Your task to perform on an android device: Open Chrome and go to the settings page Image 0: 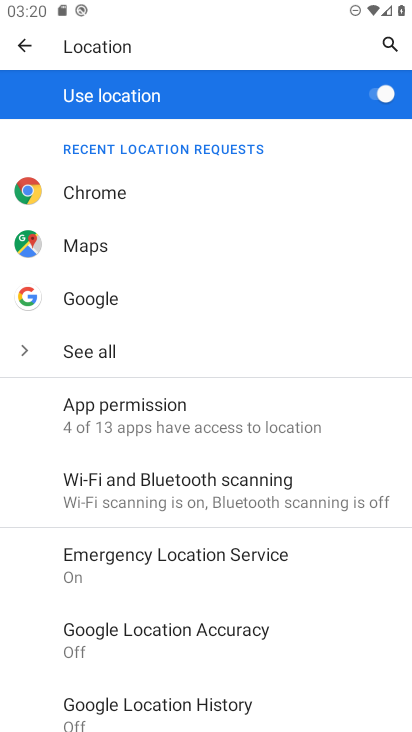
Step 0: press home button
Your task to perform on an android device: Open Chrome and go to the settings page Image 1: 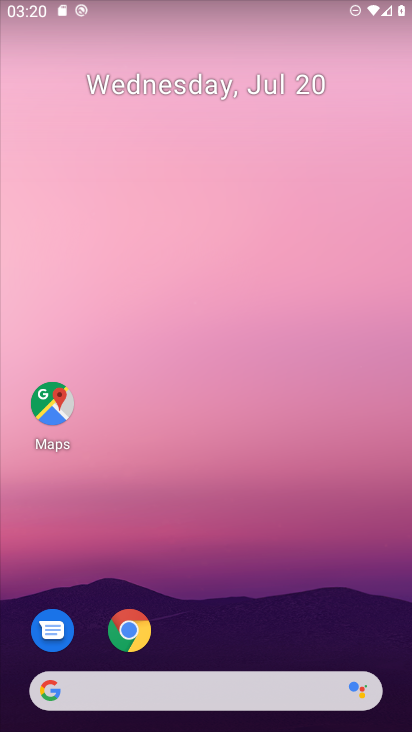
Step 1: drag from (373, 630) to (371, 205)
Your task to perform on an android device: Open Chrome and go to the settings page Image 2: 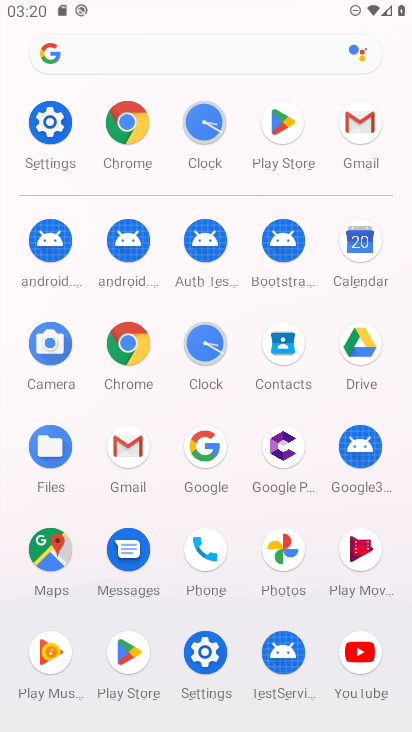
Step 2: click (135, 342)
Your task to perform on an android device: Open Chrome and go to the settings page Image 3: 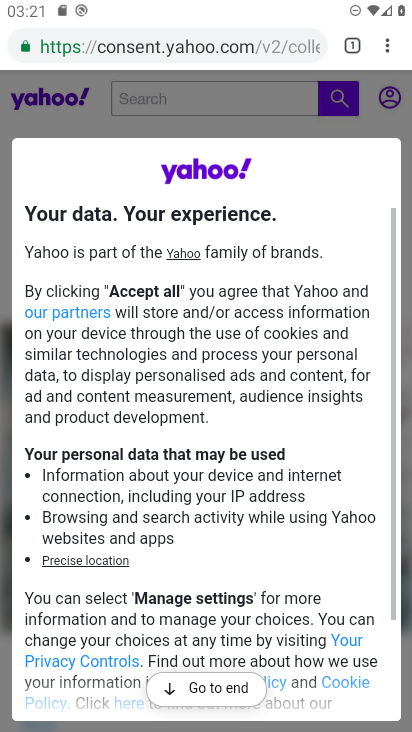
Step 3: click (391, 47)
Your task to perform on an android device: Open Chrome and go to the settings page Image 4: 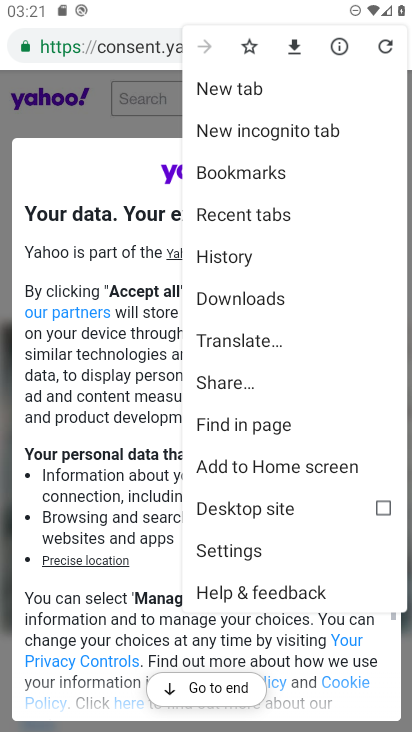
Step 4: click (247, 549)
Your task to perform on an android device: Open Chrome and go to the settings page Image 5: 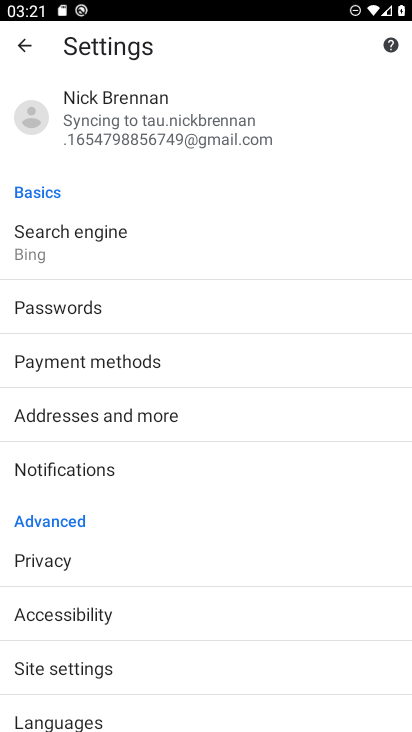
Step 5: task complete